Your task to perform on an android device: Go to Google Image 0: 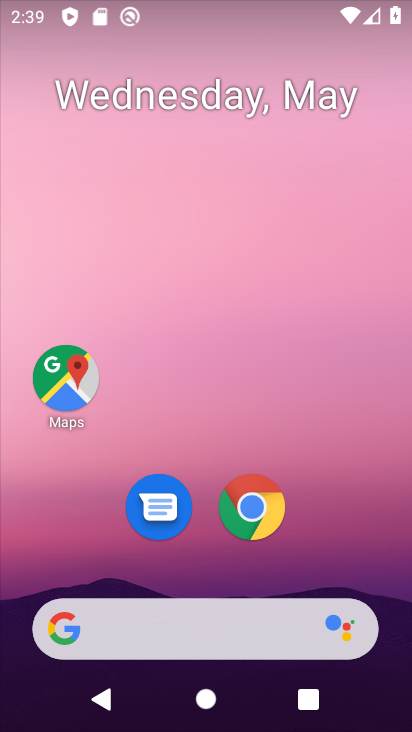
Step 0: drag from (234, 556) to (256, 77)
Your task to perform on an android device: Go to Google Image 1: 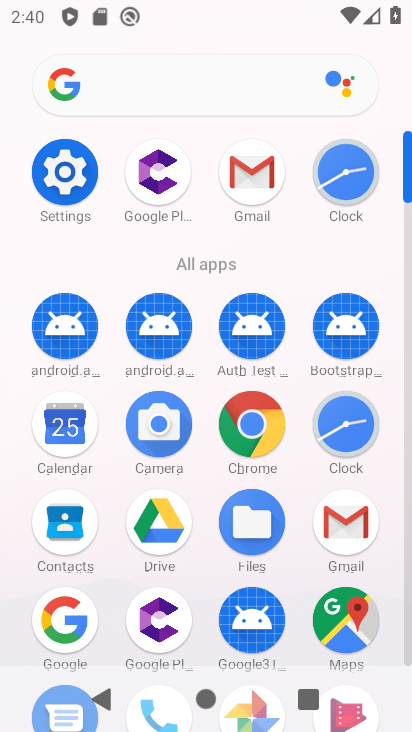
Step 1: click (78, 626)
Your task to perform on an android device: Go to Google Image 2: 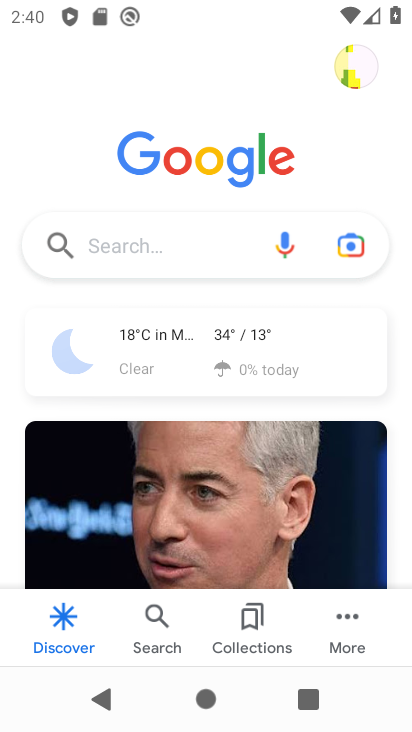
Step 2: task complete